Your task to perform on an android device: Empty the shopping cart on target.com. Search for usb-c to usb-a on target.com, select the first entry, add it to the cart, then select checkout. Image 0: 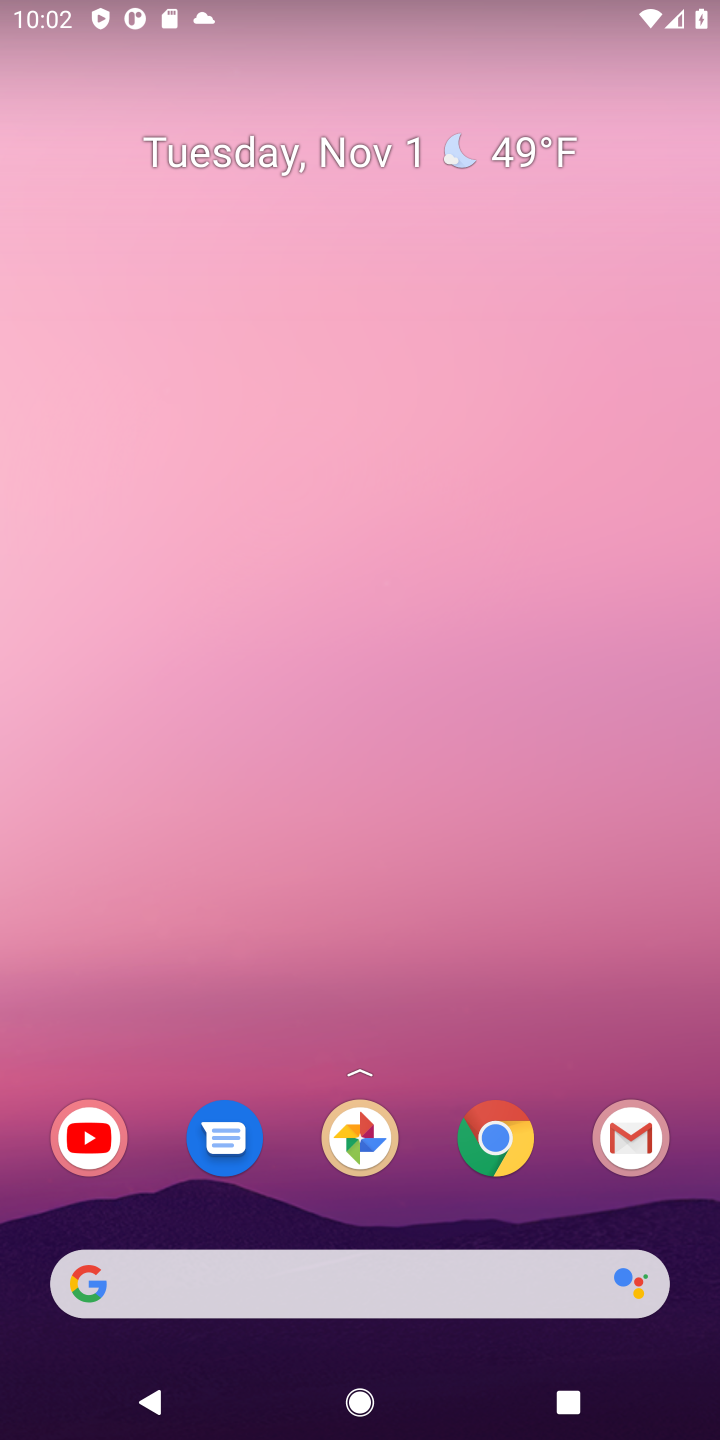
Step 0: click (500, 1134)
Your task to perform on an android device: Empty the shopping cart on target.com. Search for usb-c to usb-a on target.com, select the first entry, add it to the cart, then select checkout. Image 1: 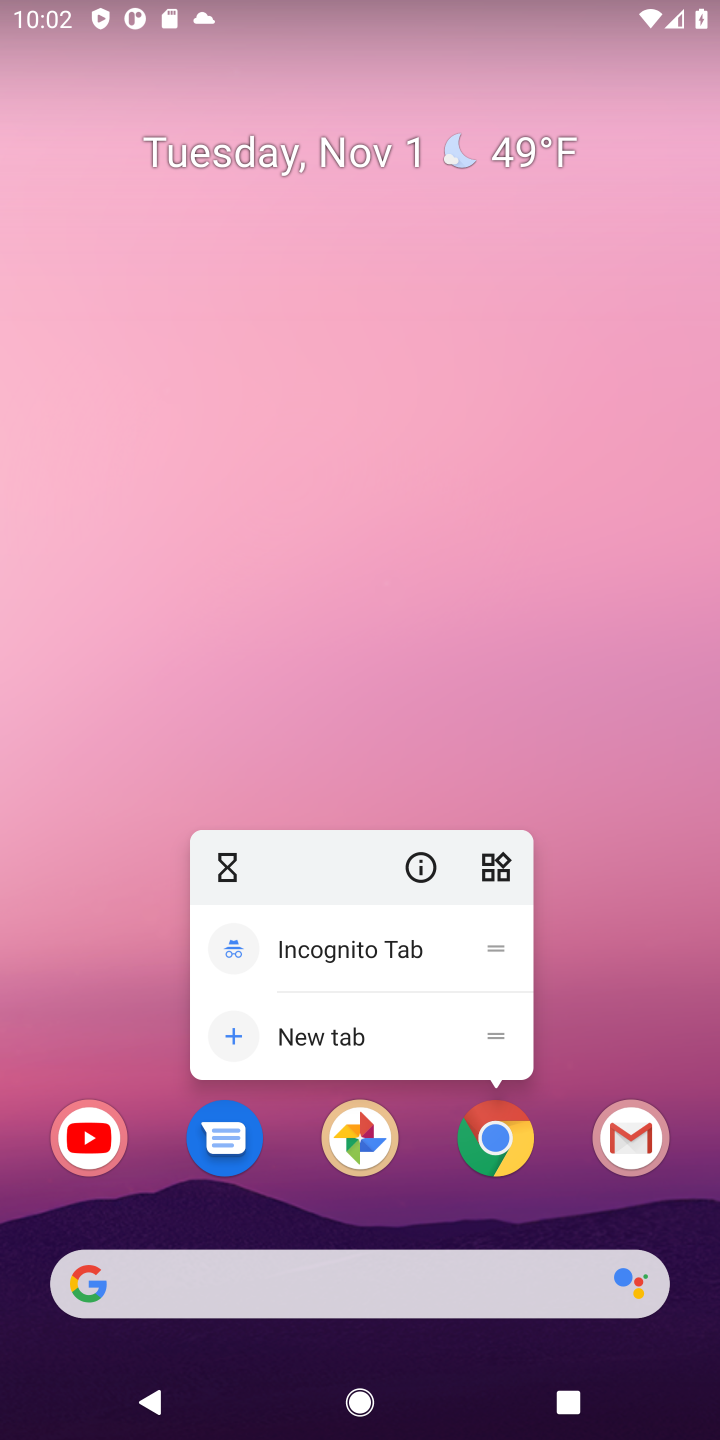
Step 1: click (491, 1144)
Your task to perform on an android device: Empty the shopping cart on target.com. Search for usb-c to usb-a on target.com, select the first entry, add it to the cart, then select checkout. Image 2: 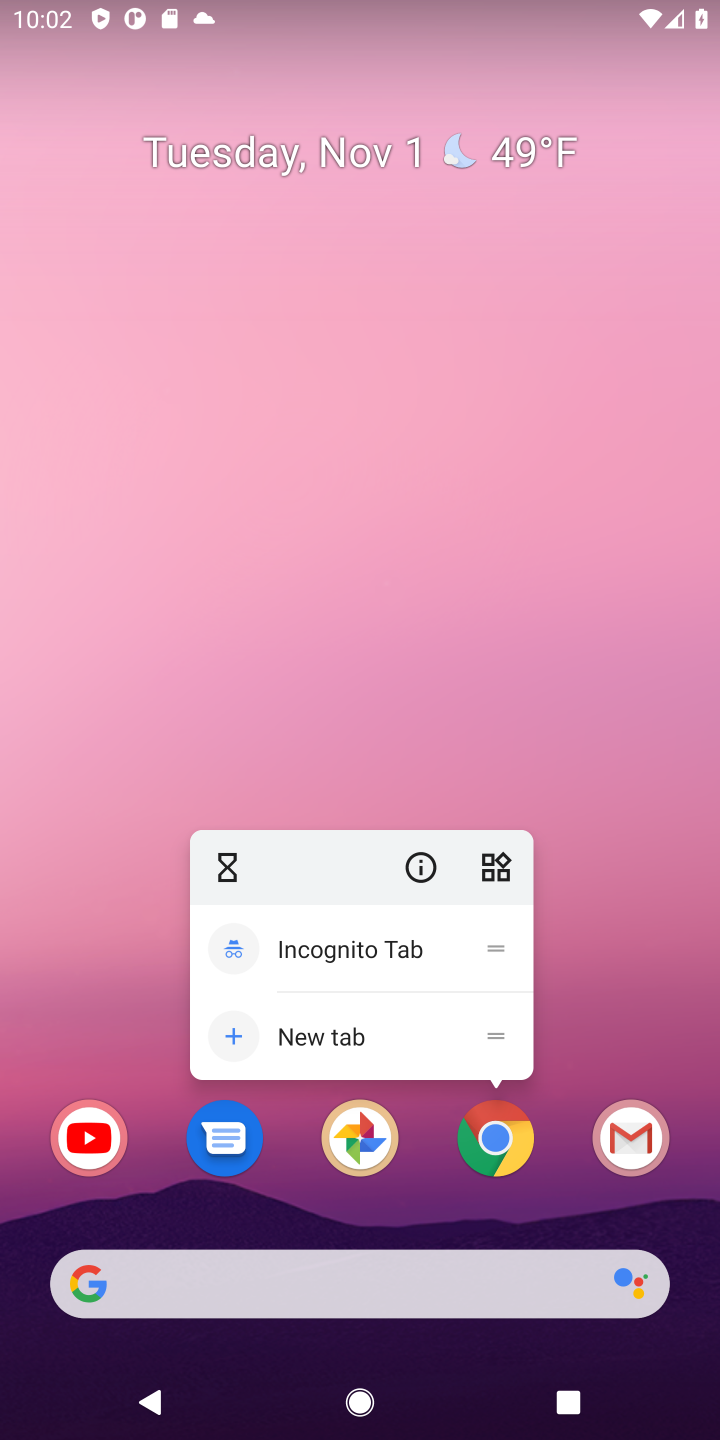
Step 2: click (498, 1134)
Your task to perform on an android device: Empty the shopping cart on target.com. Search for usb-c to usb-a on target.com, select the first entry, add it to the cart, then select checkout. Image 3: 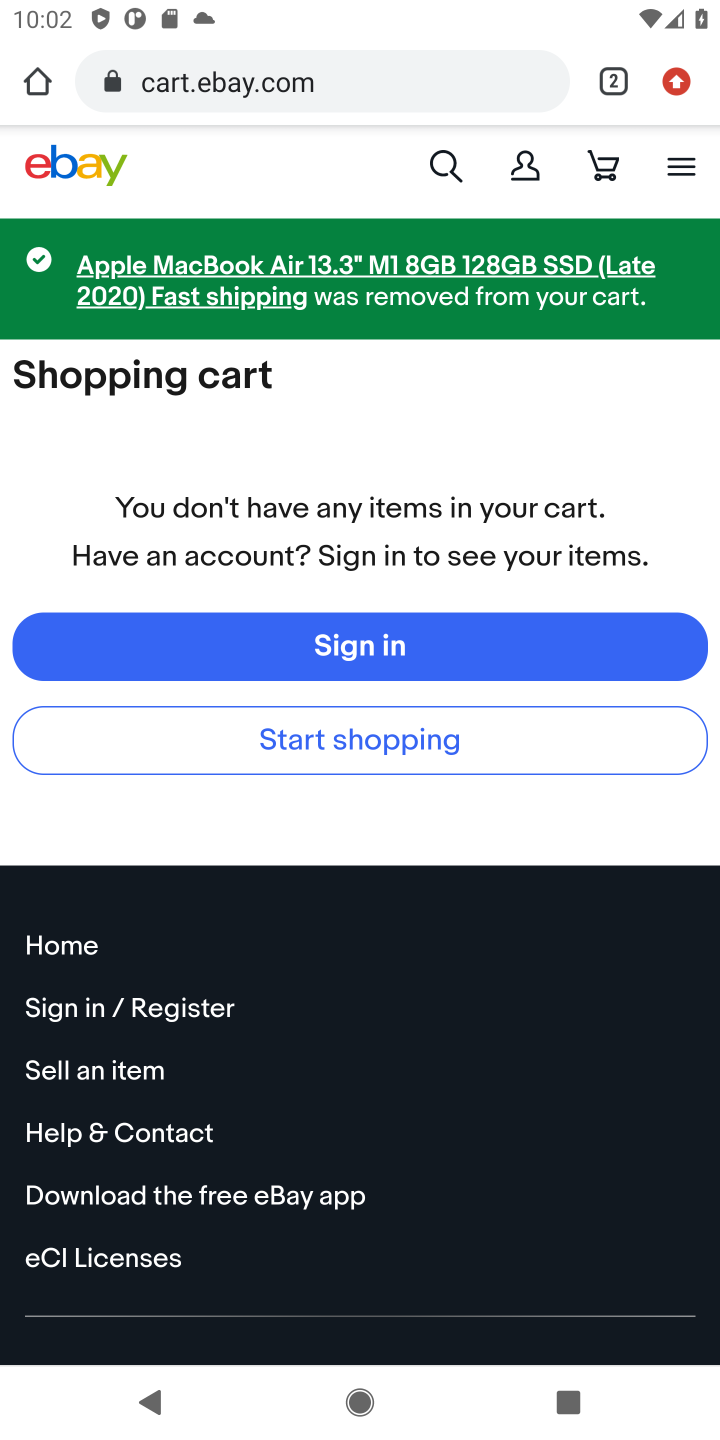
Step 3: click (341, 83)
Your task to perform on an android device: Empty the shopping cart on target.com. Search for usb-c to usb-a on target.com, select the first entry, add it to the cart, then select checkout. Image 4: 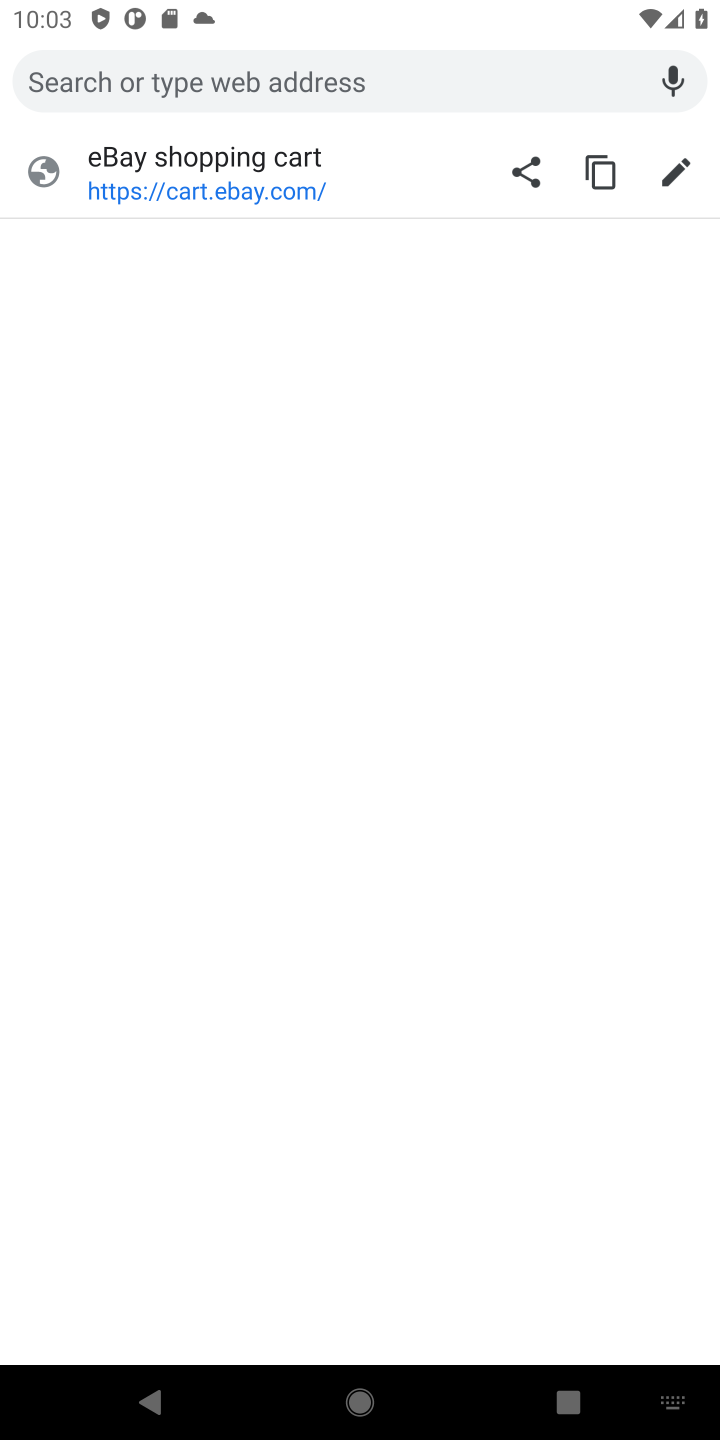
Step 4: type "target.com"
Your task to perform on an android device: Empty the shopping cart on target.com. Search for usb-c to usb-a on target.com, select the first entry, add it to the cart, then select checkout. Image 5: 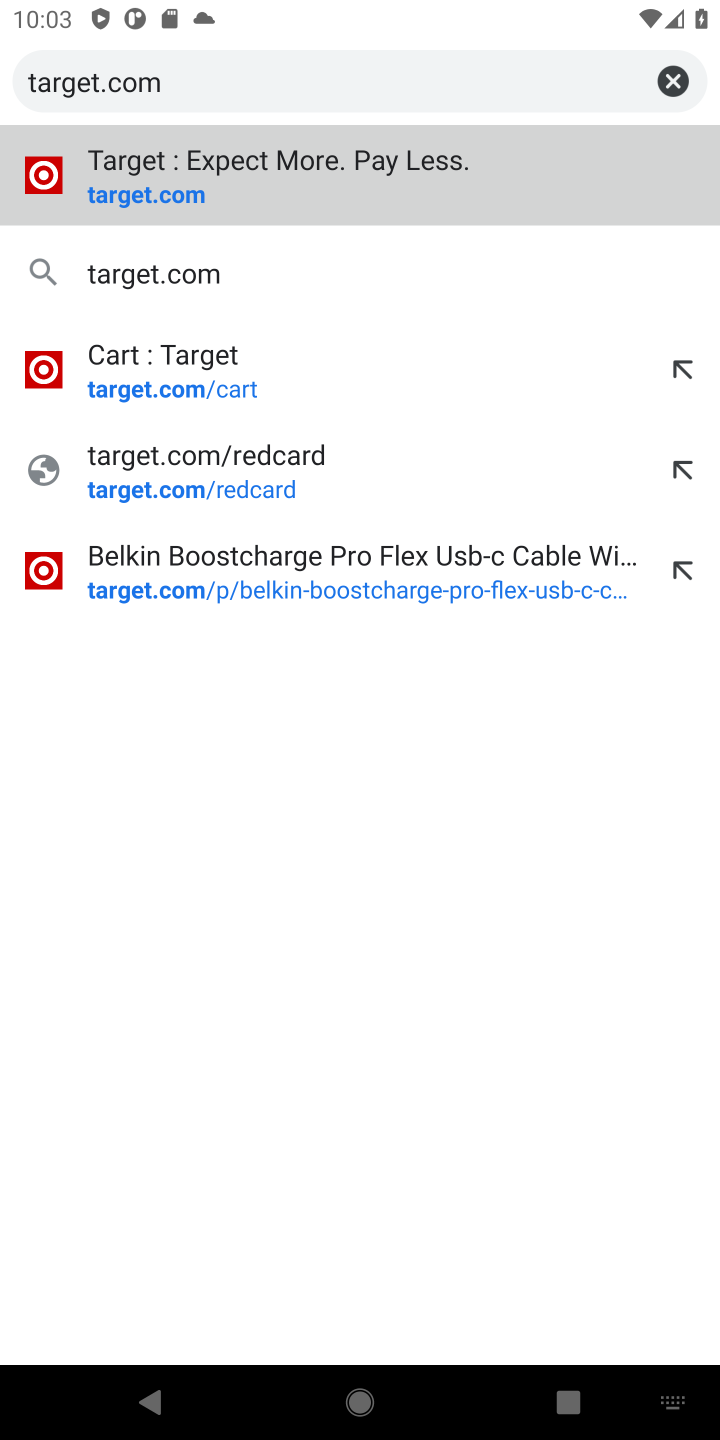
Step 5: click (163, 279)
Your task to perform on an android device: Empty the shopping cart on target.com. Search for usb-c to usb-a on target.com, select the first entry, add it to the cart, then select checkout. Image 6: 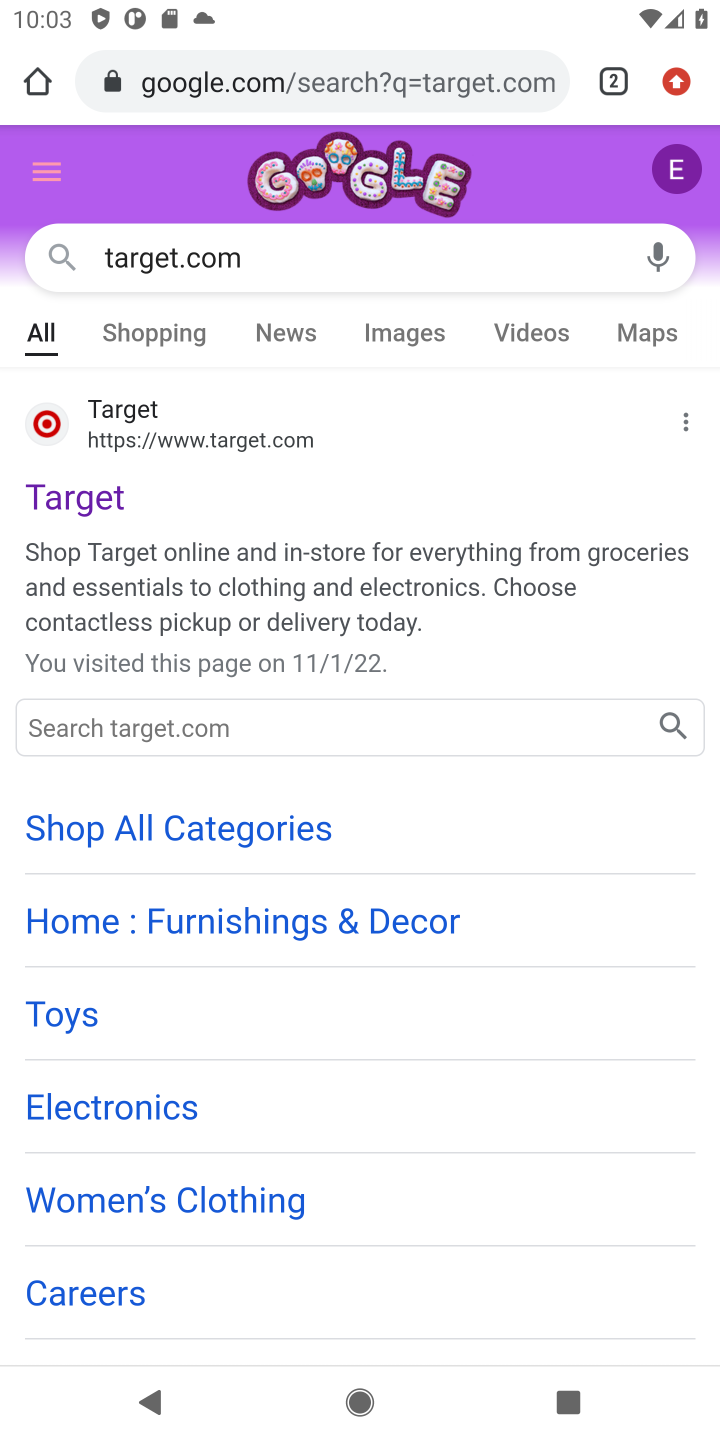
Step 6: click (178, 493)
Your task to perform on an android device: Empty the shopping cart on target.com. Search for usb-c to usb-a on target.com, select the first entry, add it to the cart, then select checkout. Image 7: 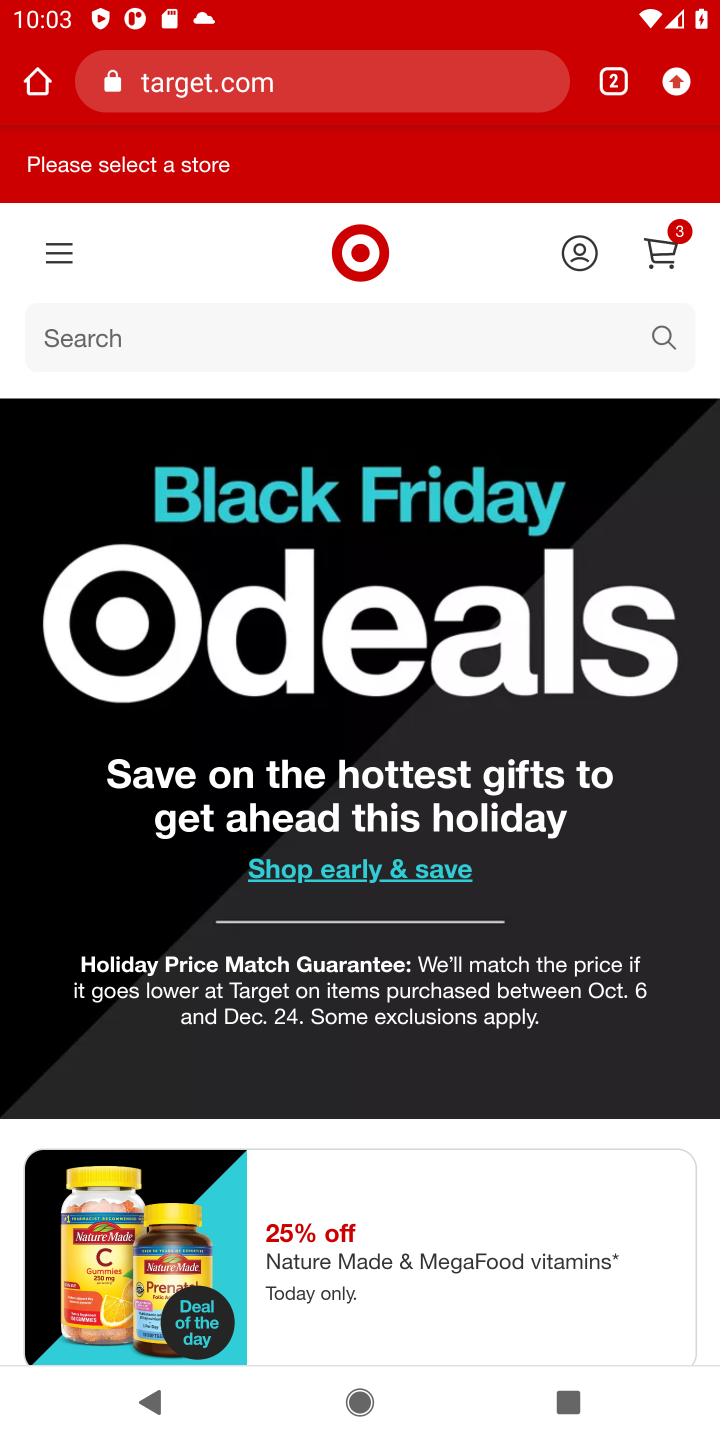
Step 7: click (669, 243)
Your task to perform on an android device: Empty the shopping cart on target.com. Search for usb-c to usb-a on target.com, select the first entry, add it to the cart, then select checkout. Image 8: 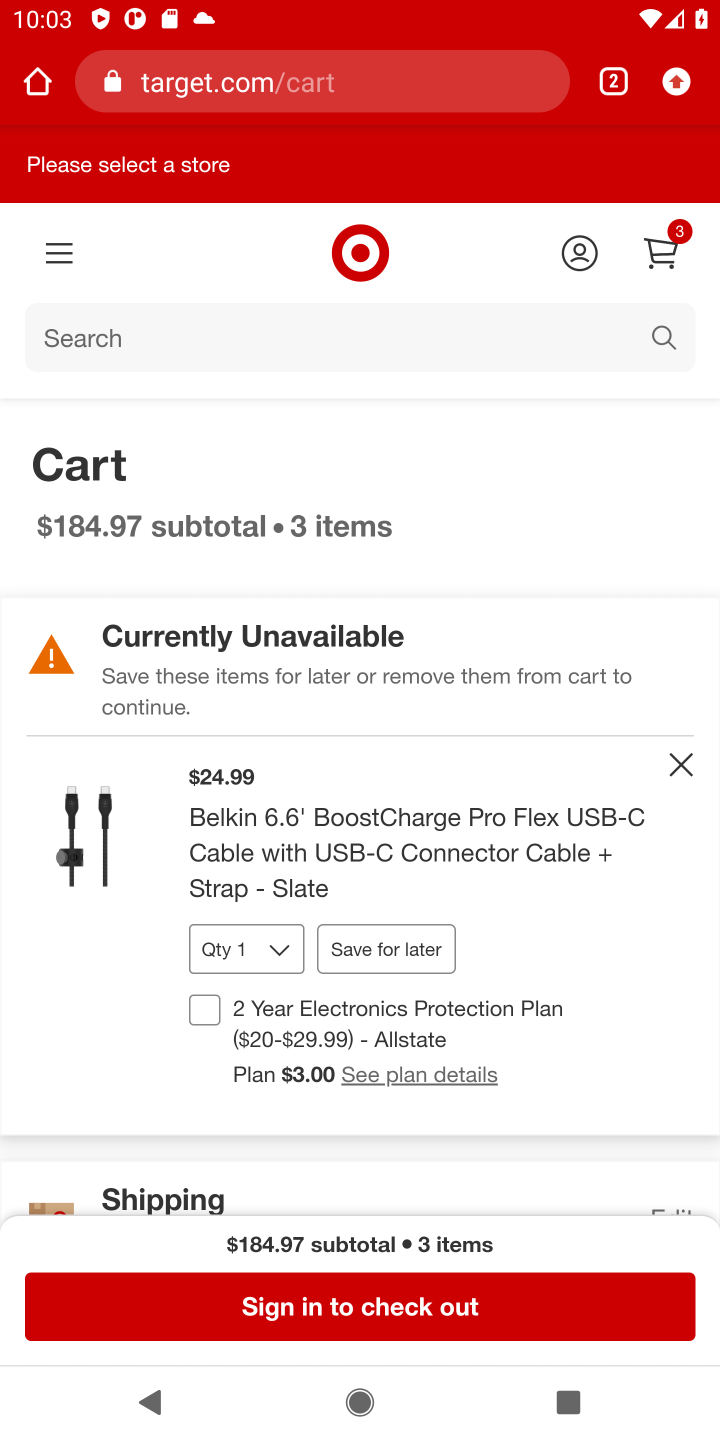
Step 8: click (681, 762)
Your task to perform on an android device: Empty the shopping cart on target.com. Search for usb-c to usb-a on target.com, select the first entry, add it to the cart, then select checkout. Image 9: 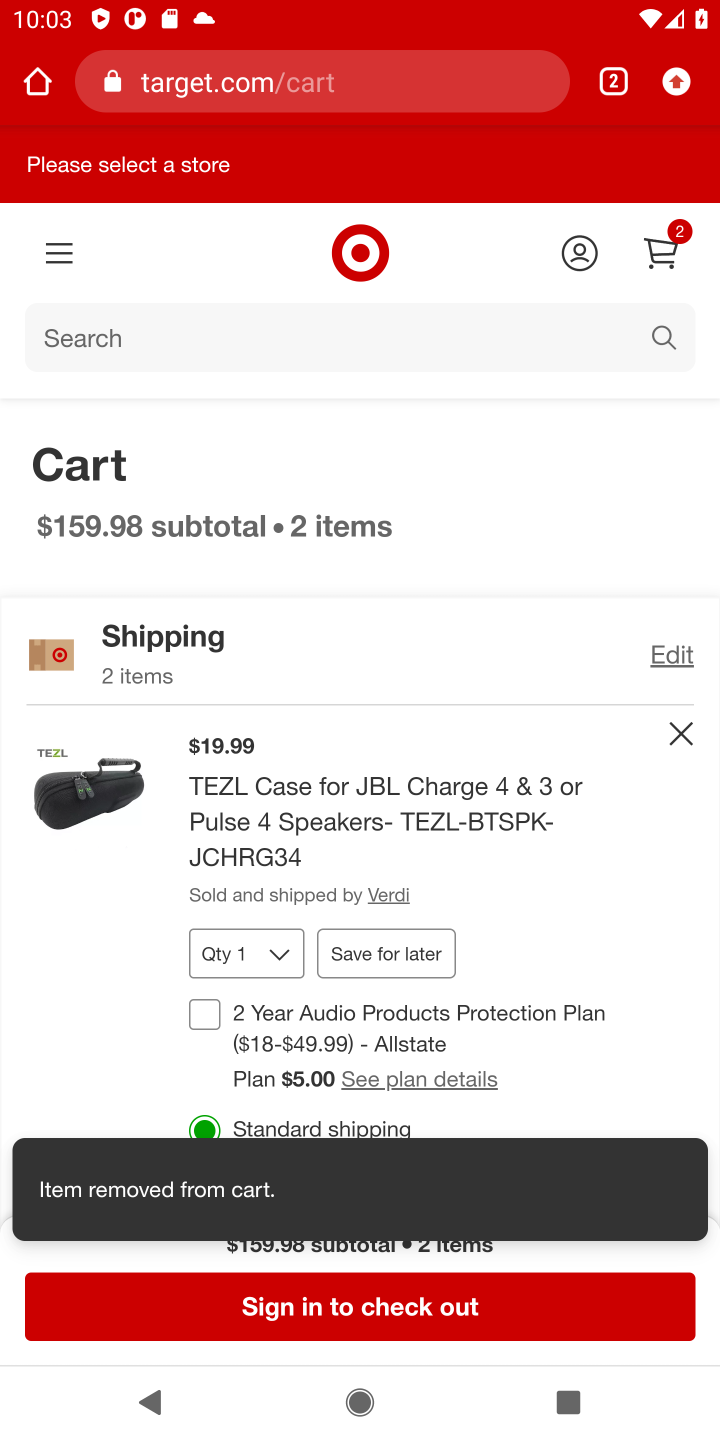
Step 9: click (684, 732)
Your task to perform on an android device: Empty the shopping cart on target.com. Search for usb-c to usb-a on target.com, select the first entry, add it to the cart, then select checkout. Image 10: 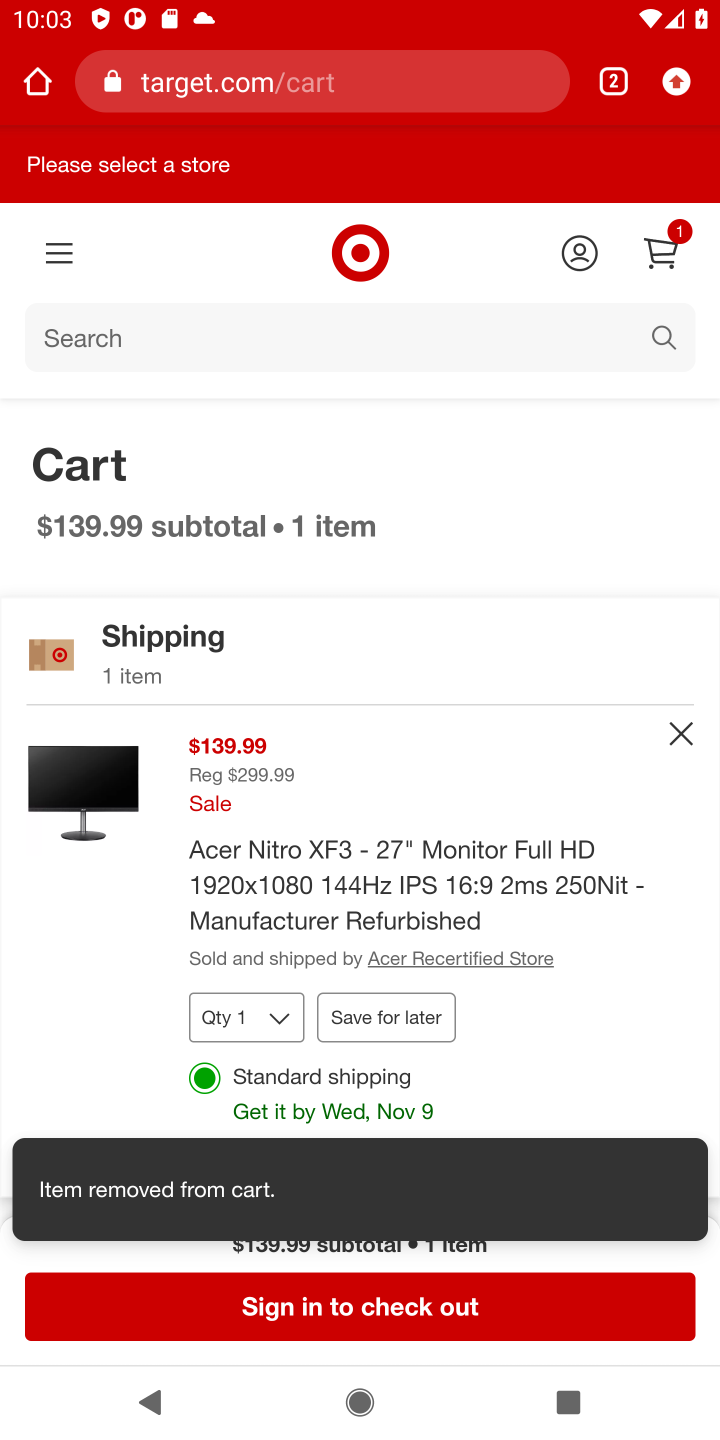
Step 10: click (684, 732)
Your task to perform on an android device: Empty the shopping cart on target.com. Search for usb-c to usb-a on target.com, select the first entry, add it to the cart, then select checkout. Image 11: 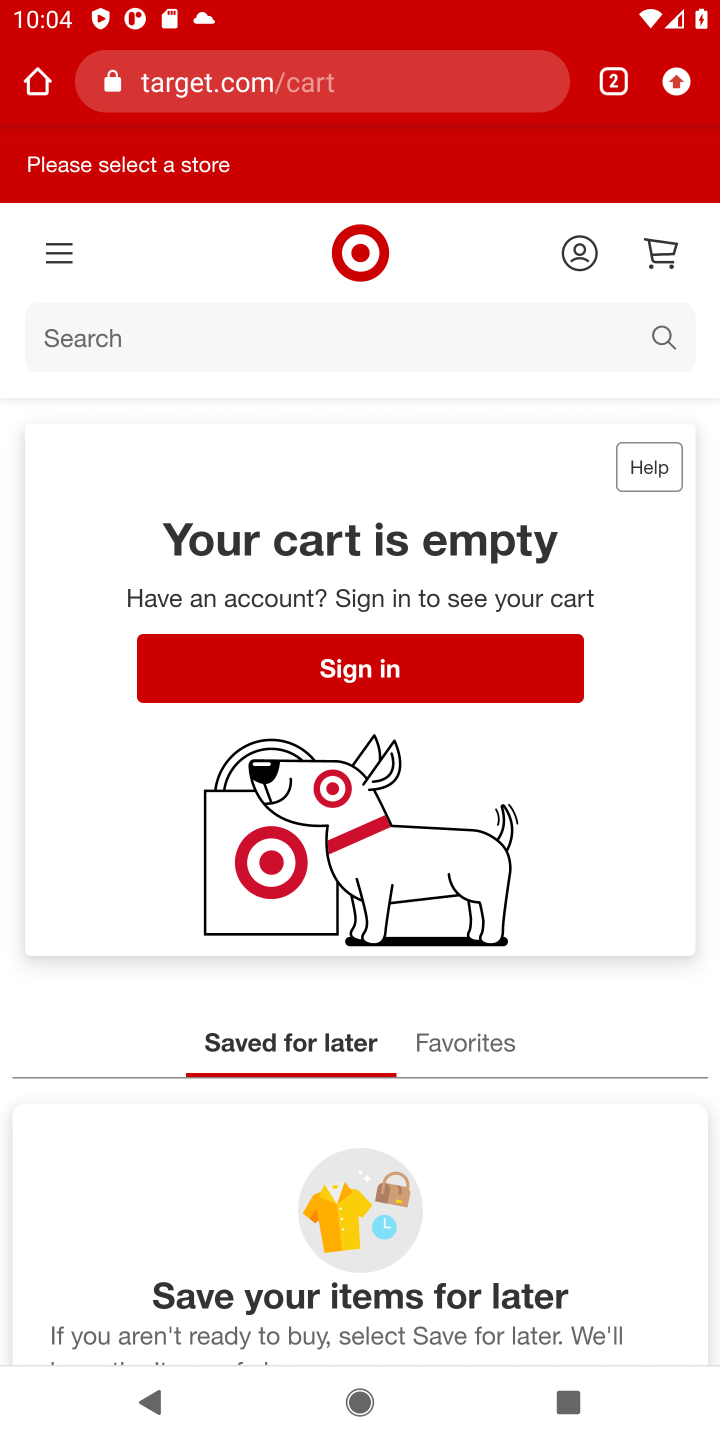
Step 11: click (328, 350)
Your task to perform on an android device: Empty the shopping cart on target.com. Search for usb-c to usb-a on target.com, select the first entry, add it to the cart, then select checkout. Image 12: 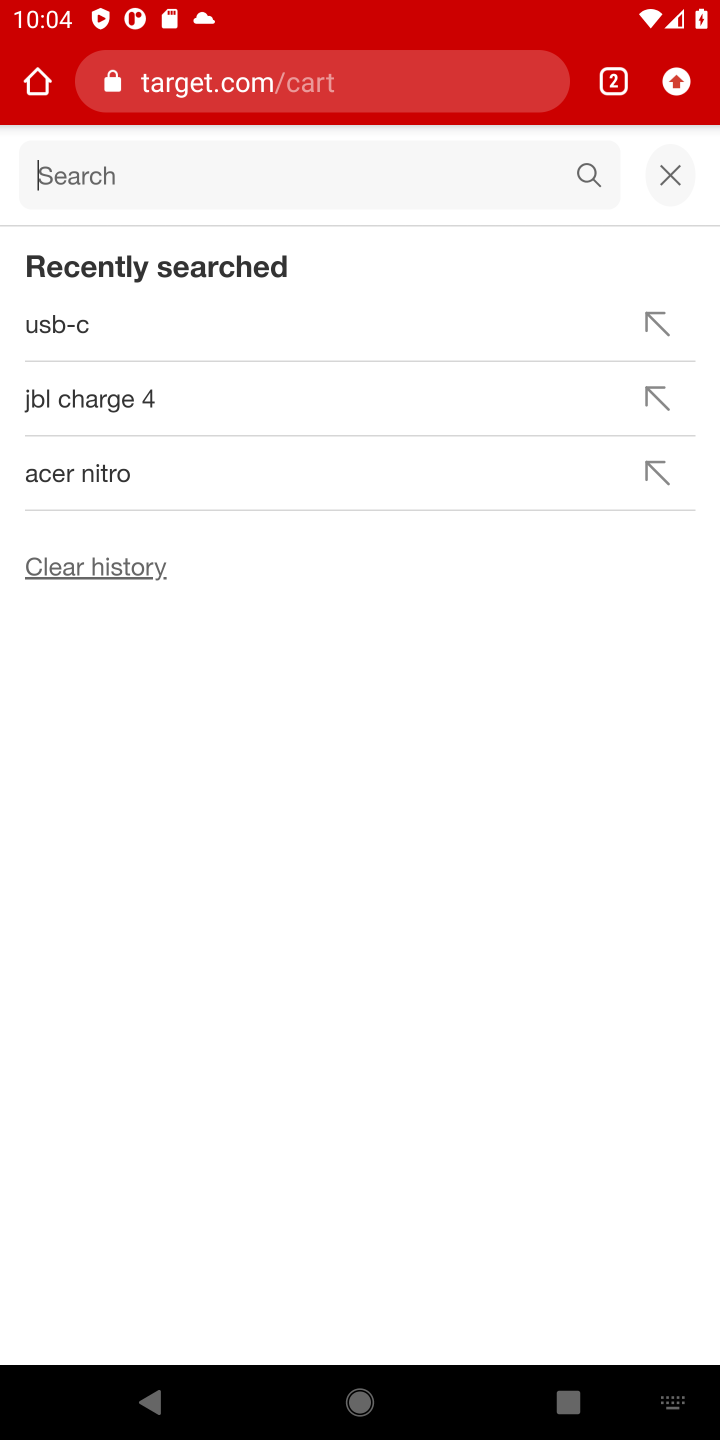
Step 12: type "usb-c to usb-a "
Your task to perform on an android device: Empty the shopping cart on target.com. Search for usb-c to usb-a on target.com, select the first entry, add it to the cart, then select checkout. Image 13: 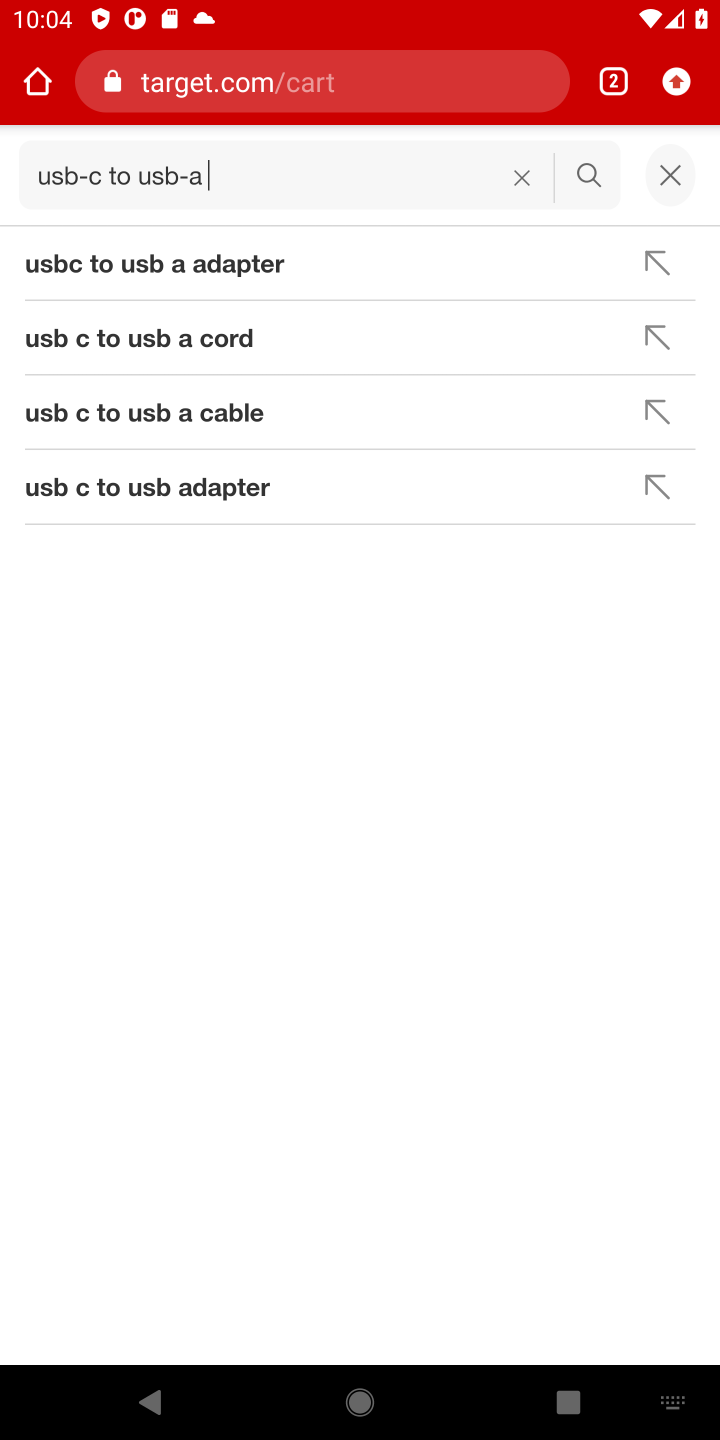
Step 13: click (588, 177)
Your task to perform on an android device: Empty the shopping cart on target.com. Search for usb-c to usb-a on target.com, select the first entry, add it to the cart, then select checkout. Image 14: 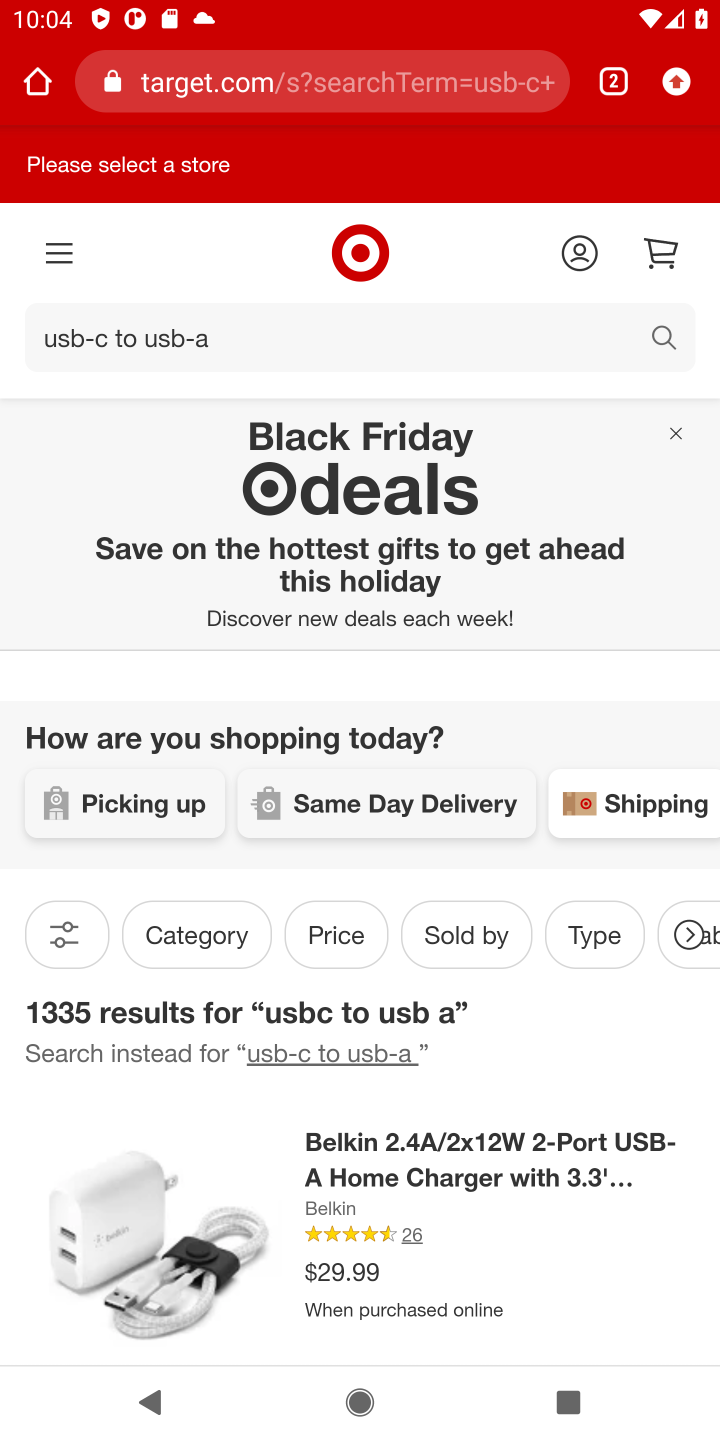
Step 14: click (521, 1165)
Your task to perform on an android device: Empty the shopping cart on target.com. Search for usb-c to usb-a on target.com, select the first entry, add it to the cart, then select checkout. Image 15: 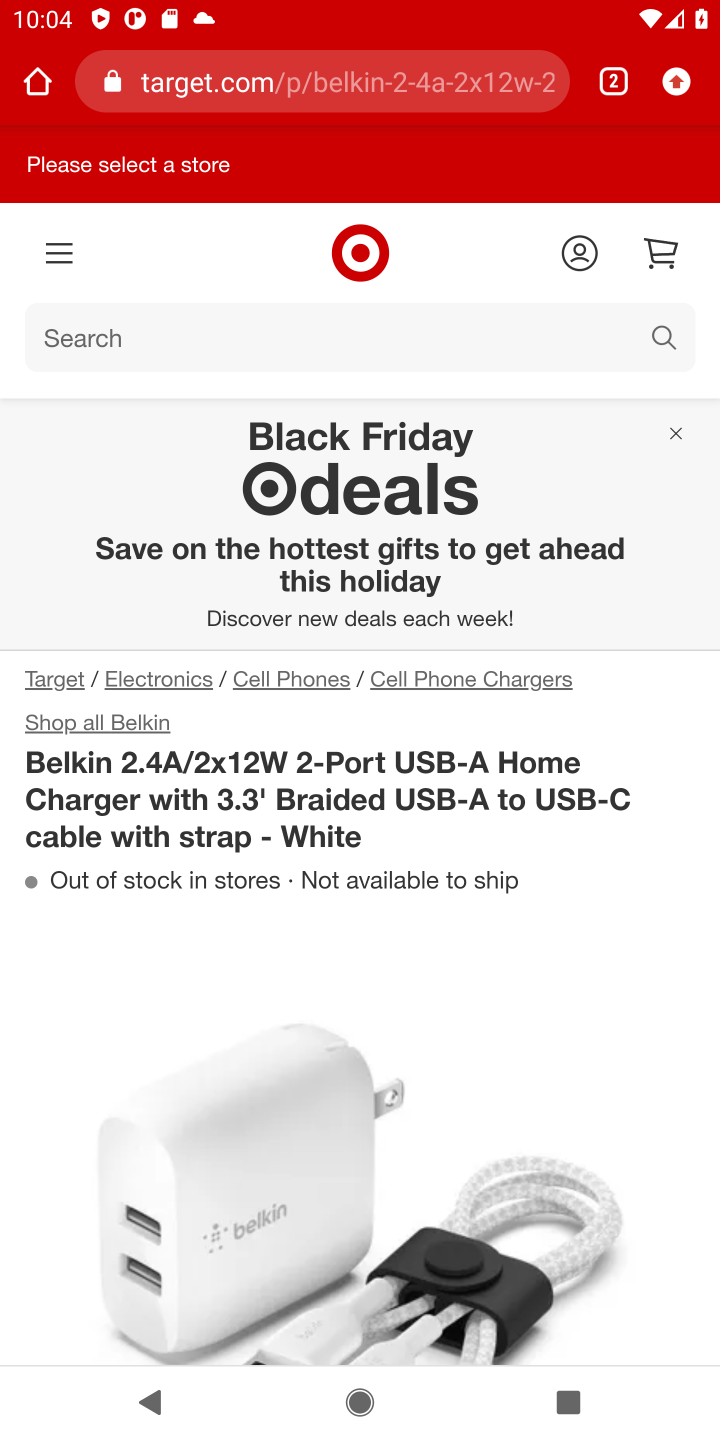
Step 15: drag from (469, 1032) to (486, 714)
Your task to perform on an android device: Empty the shopping cart on target.com. Search for usb-c to usb-a on target.com, select the first entry, add it to the cart, then select checkout. Image 16: 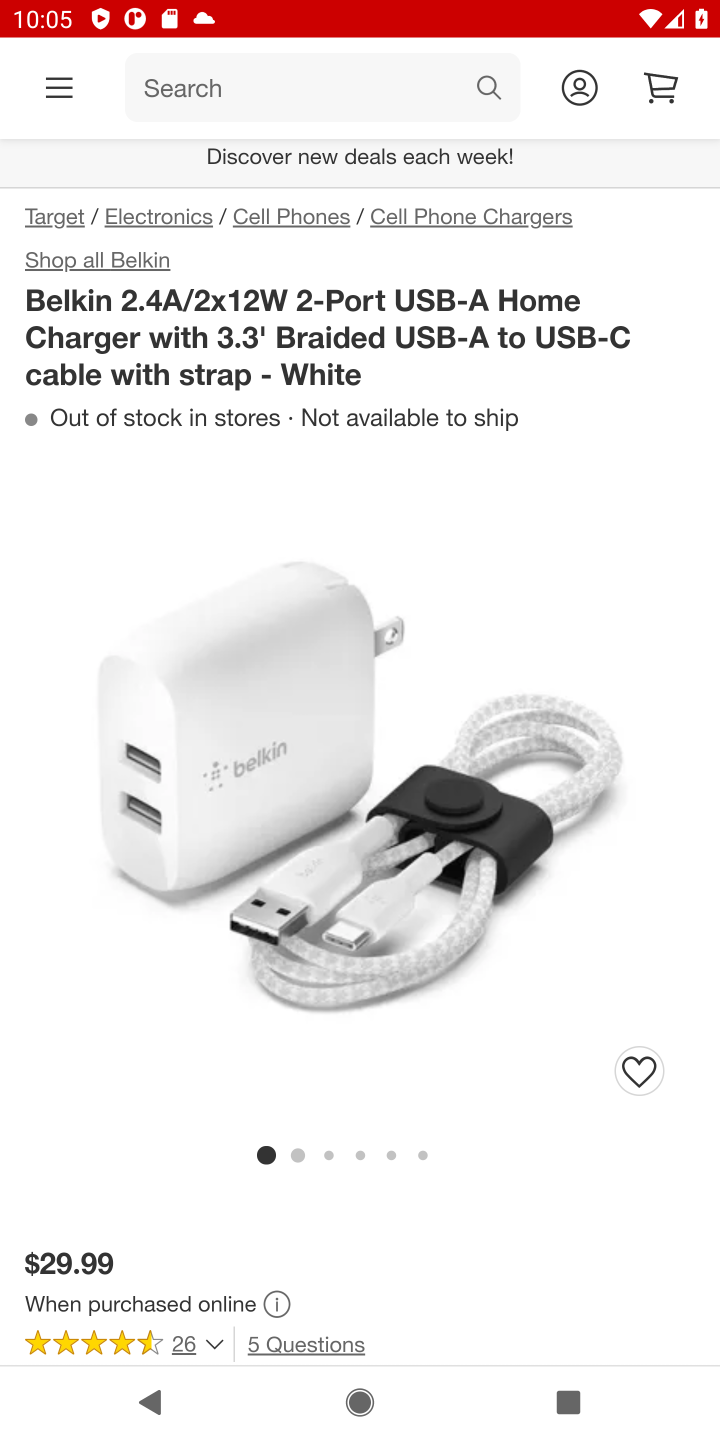
Step 16: drag from (445, 1032) to (473, 588)
Your task to perform on an android device: Empty the shopping cart on target.com. Search for usb-c to usb-a on target.com, select the first entry, add it to the cart, then select checkout. Image 17: 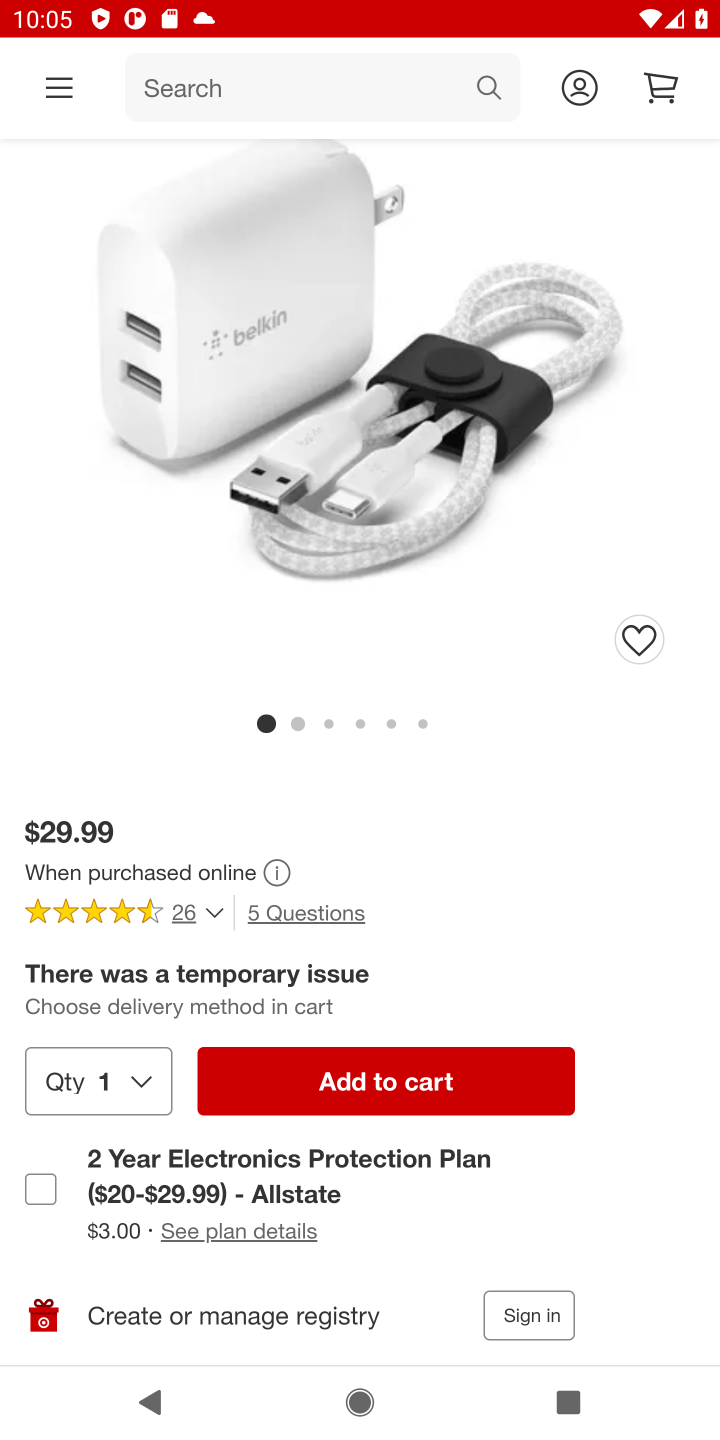
Step 17: click (402, 1079)
Your task to perform on an android device: Empty the shopping cart on target.com. Search for usb-c to usb-a on target.com, select the first entry, add it to the cart, then select checkout. Image 18: 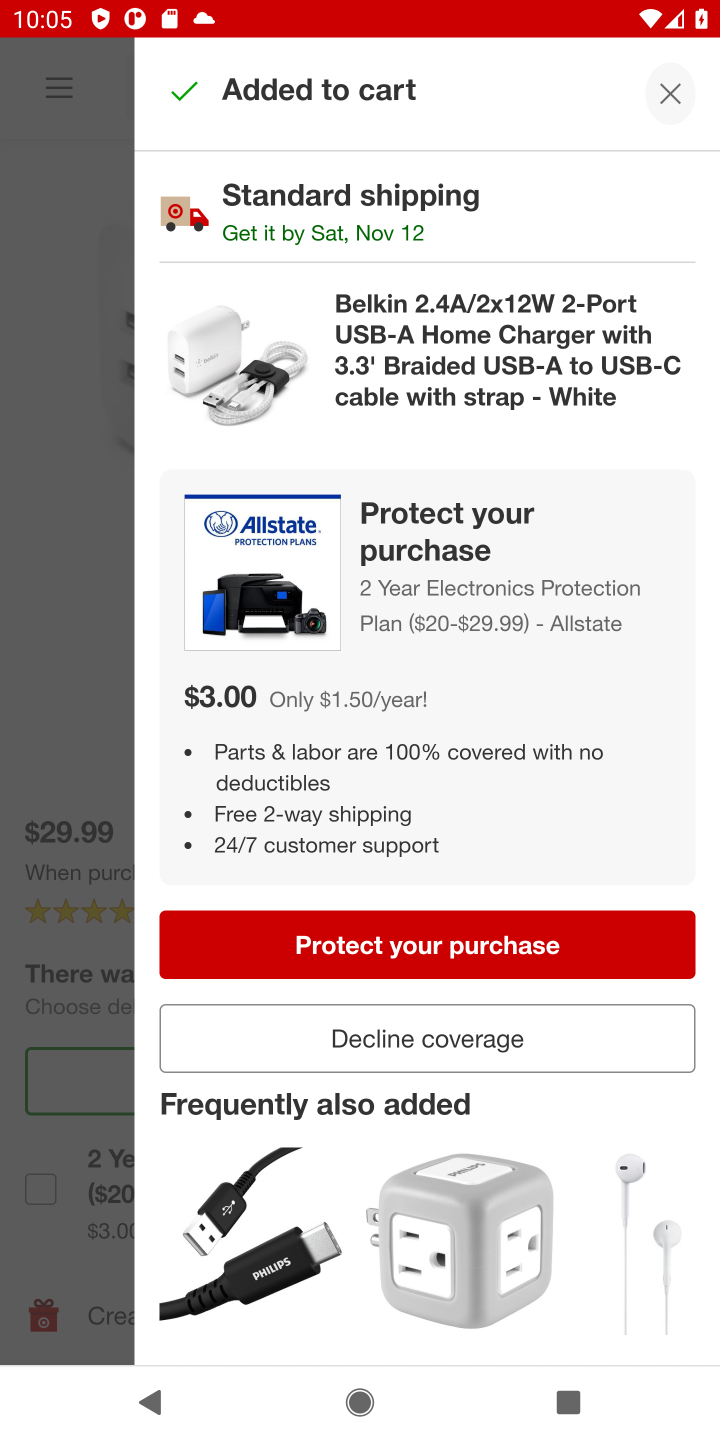
Step 18: click (423, 1044)
Your task to perform on an android device: Empty the shopping cart on target.com. Search for usb-c to usb-a on target.com, select the first entry, add it to the cart, then select checkout. Image 19: 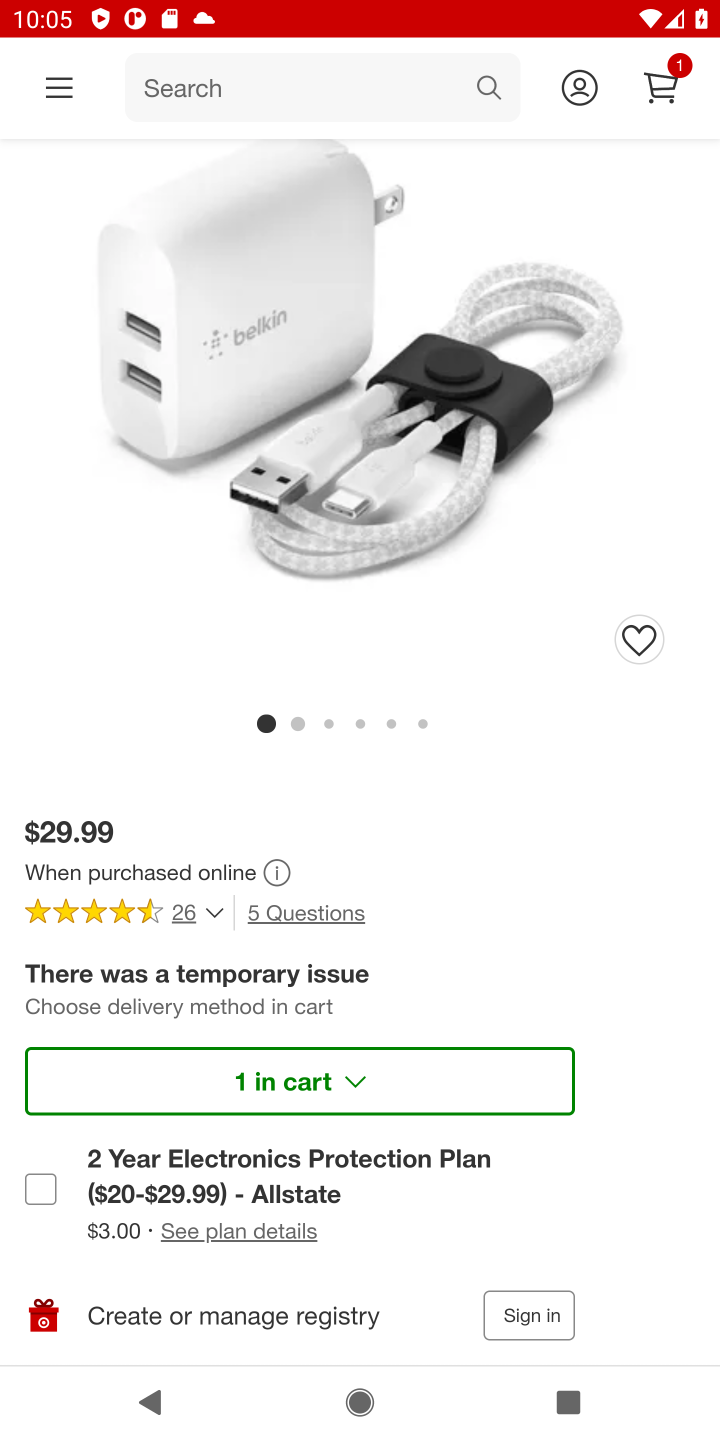
Step 19: click (660, 90)
Your task to perform on an android device: Empty the shopping cart on target.com. Search for usb-c to usb-a on target.com, select the first entry, add it to the cart, then select checkout. Image 20: 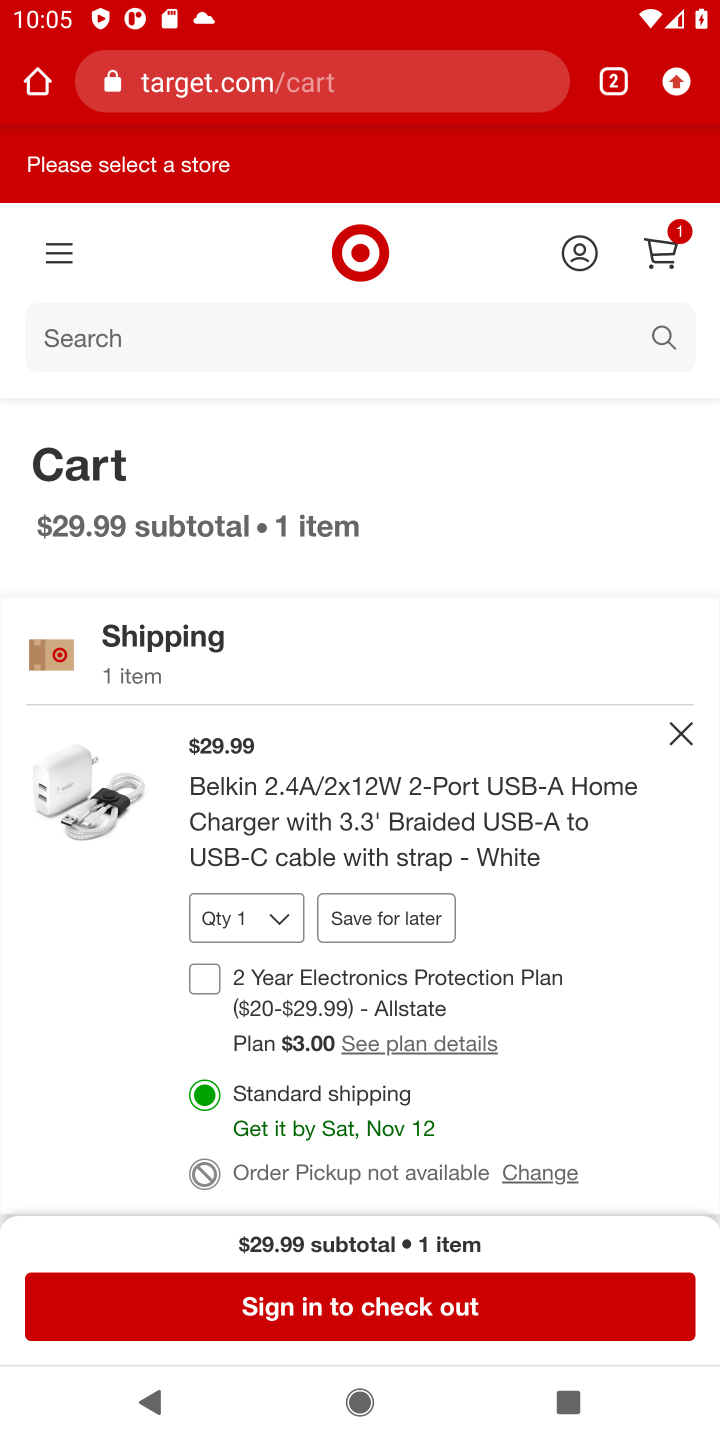
Step 20: click (415, 1309)
Your task to perform on an android device: Empty the shopping cart on target.com. Search for usb-c to usb-a on target.com, select the first entry, add it to the cart, then select checkout. Image 21: 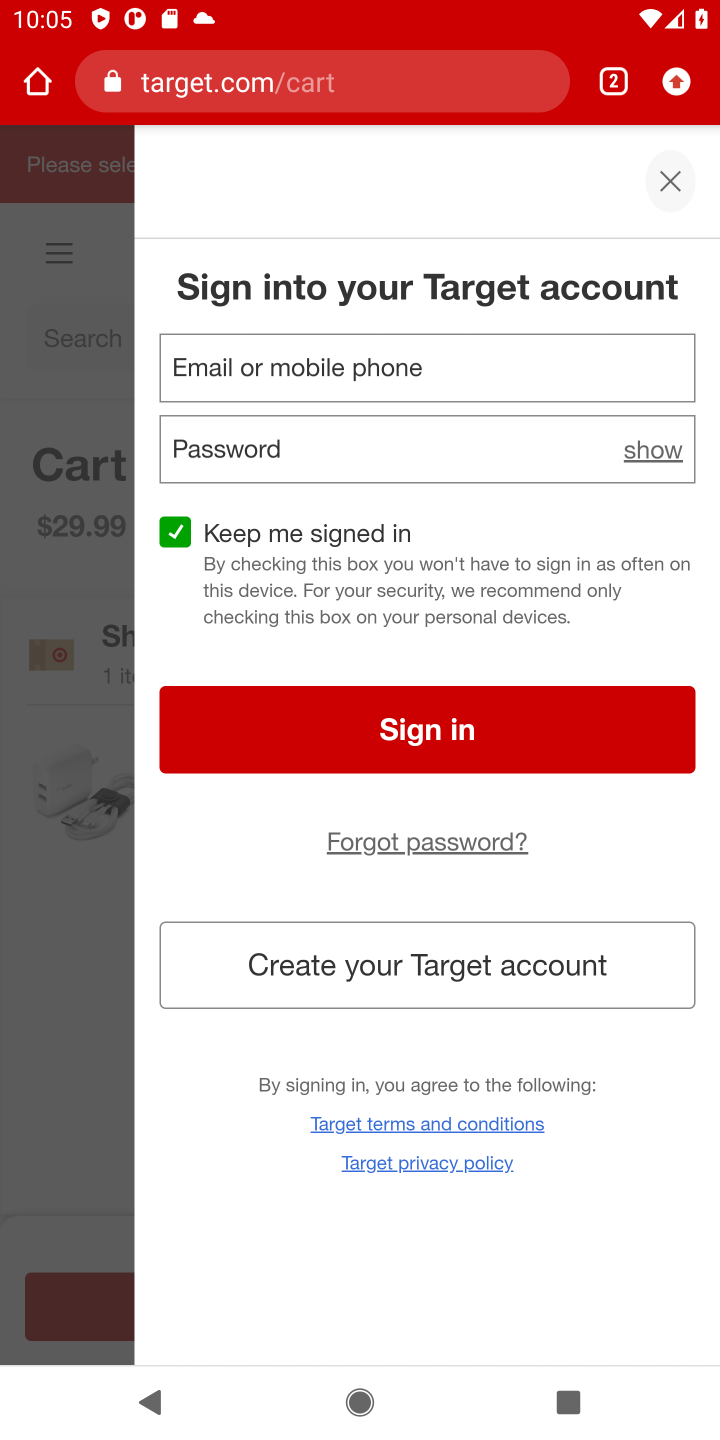
Step 21: task complete